Your task to perform on an android device: Search for the best 4k TVs Image 0: 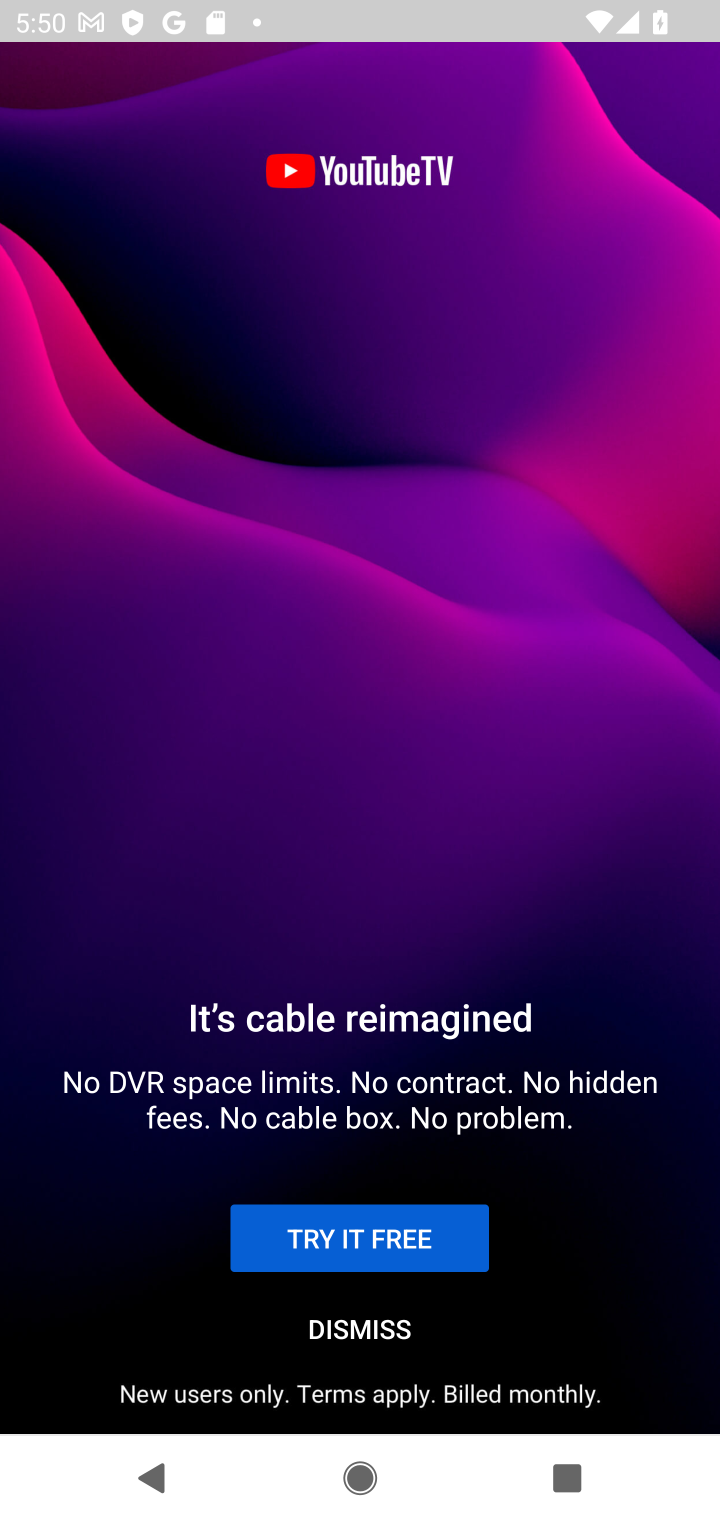
Step 0: press home button
Your task to perform on an android device: Search for the best 4k TVs Image 1: 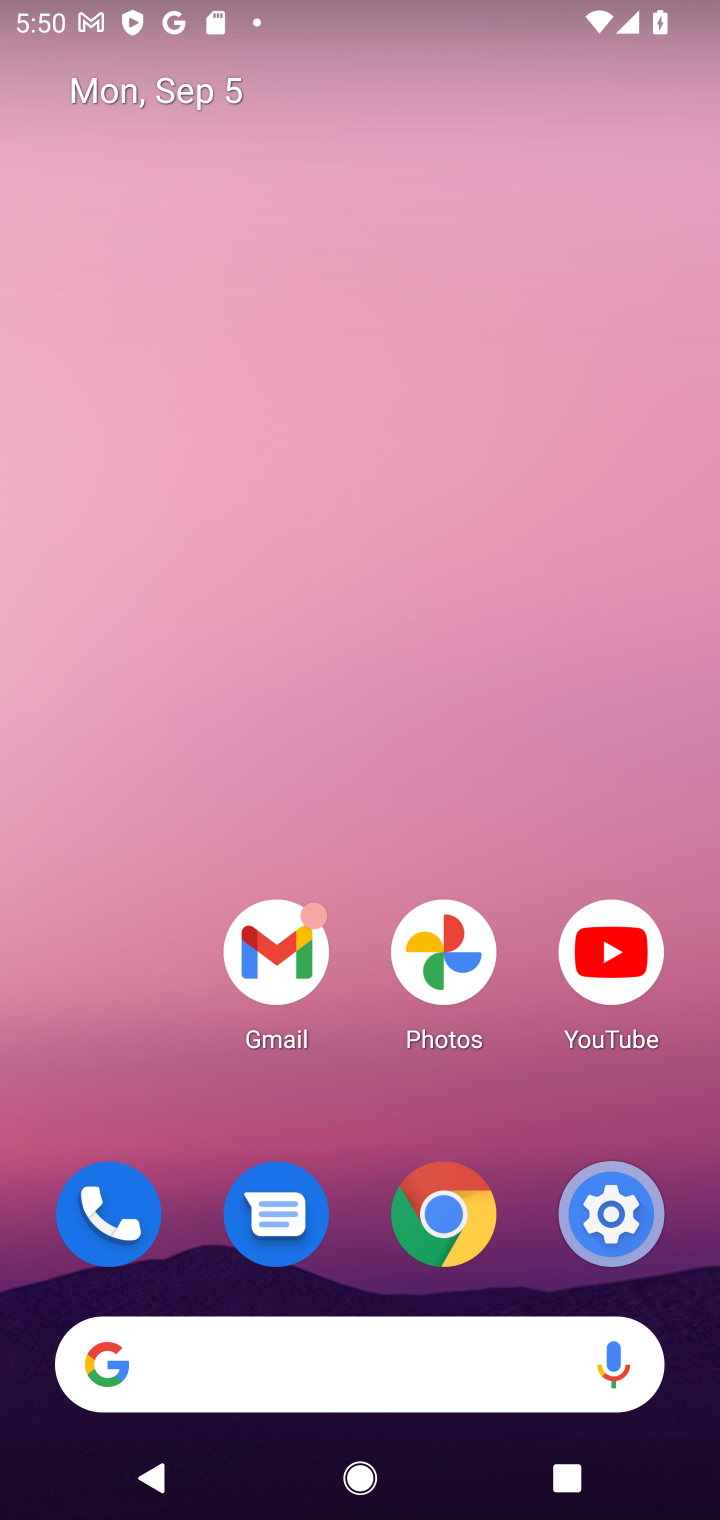
Step 1: drag from (540, 1264) to (463, 0)
Your task to perform on an android device: Search for the best 4k TVs Image 2: 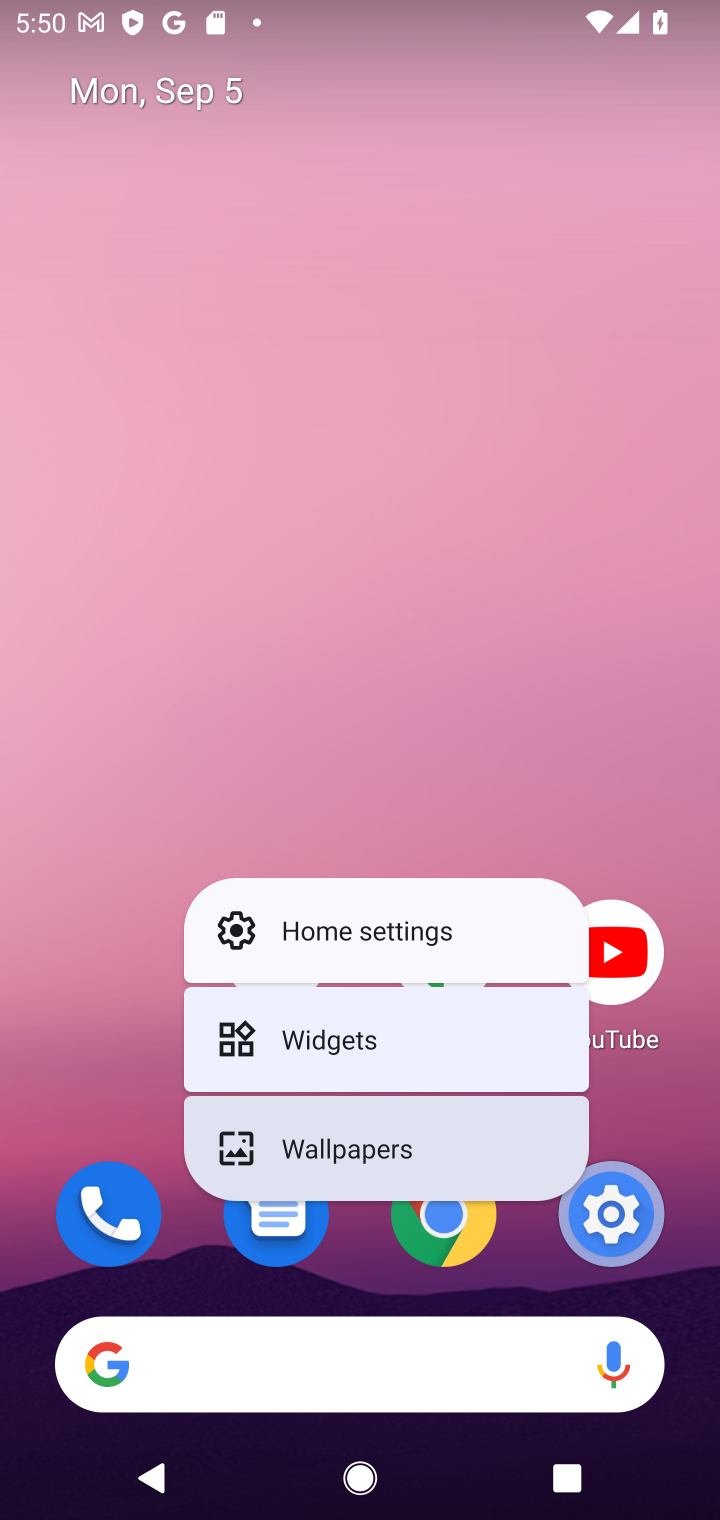
Step 2: click (533, 667)
Your task to perform on an android device: Search for the best 4k TVs Image 3: 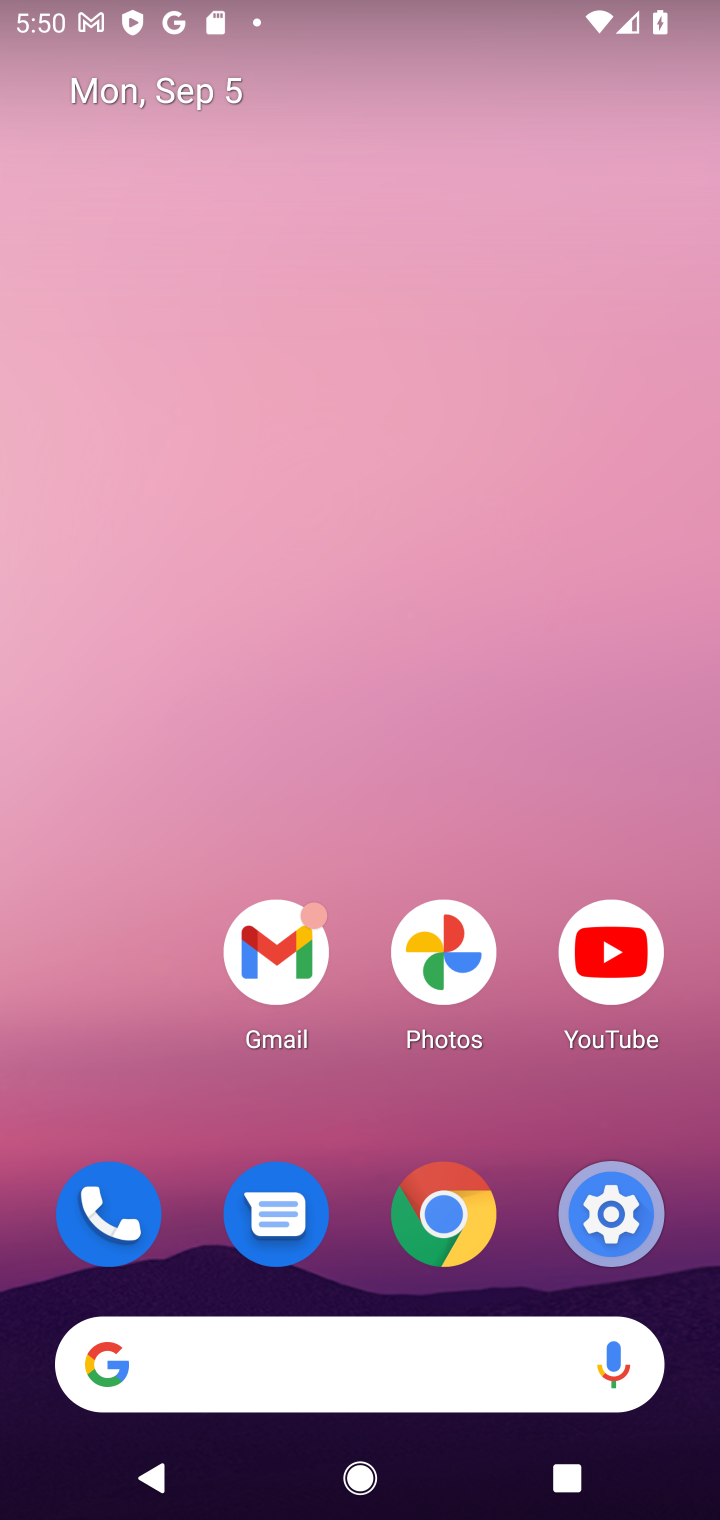
Step 3: drag from (547, 1268) to (453, 246)
Your task to perform on an android device: Search for the best 4k TVs Image 4: 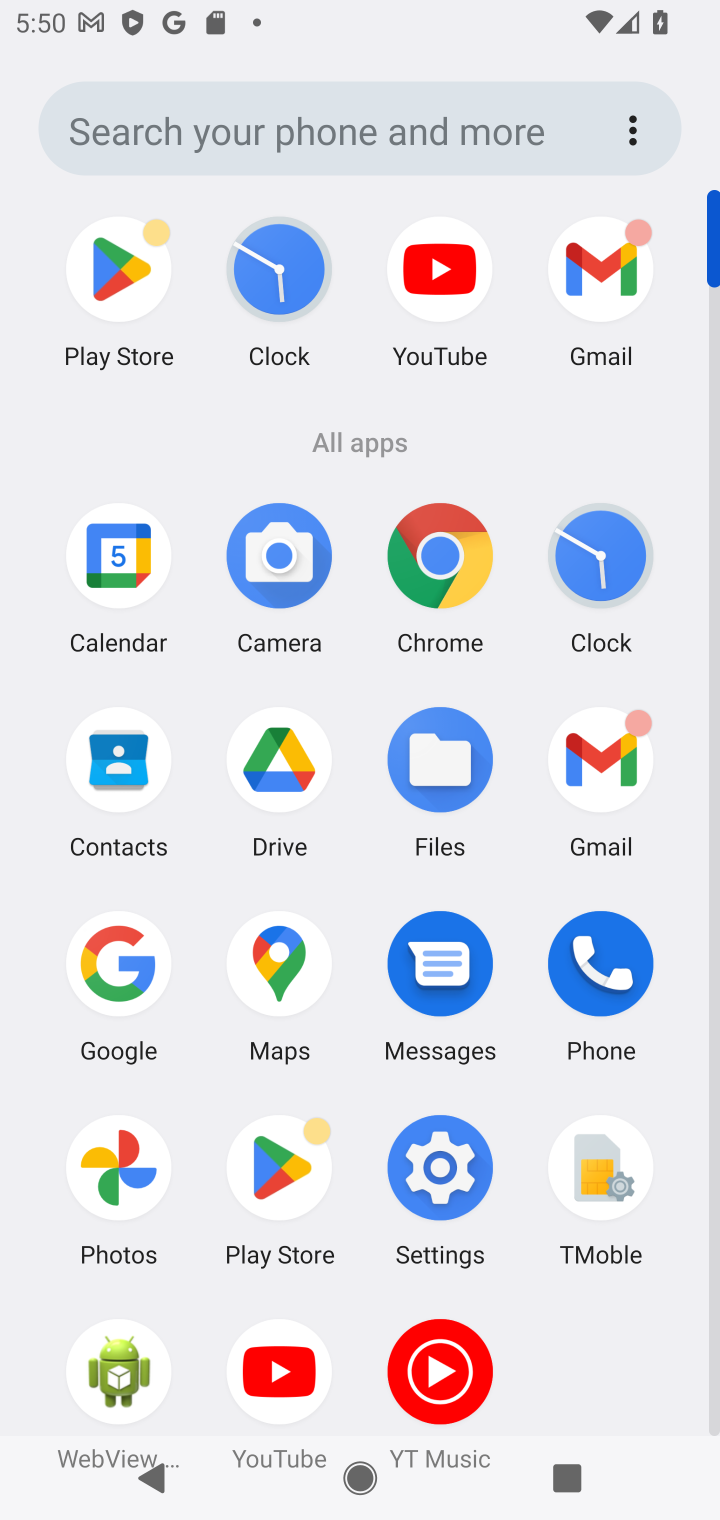
Step 4: click (435, 528)
Your task to perform on an android device: Search for the best 4k TVs Image 5: 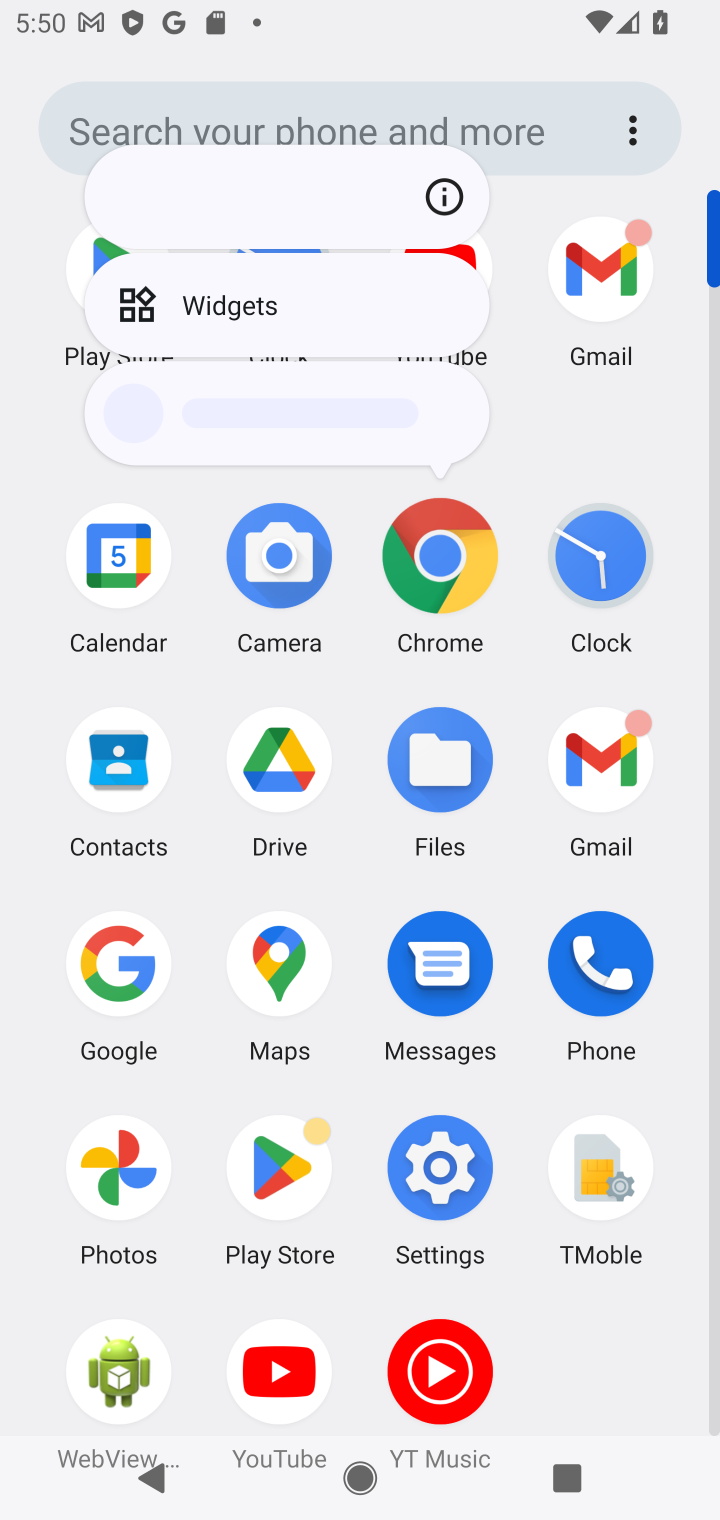
Step 5: click (419, 549)
Your task to perform on an android device: Search for the best 4k TVs Image 6: 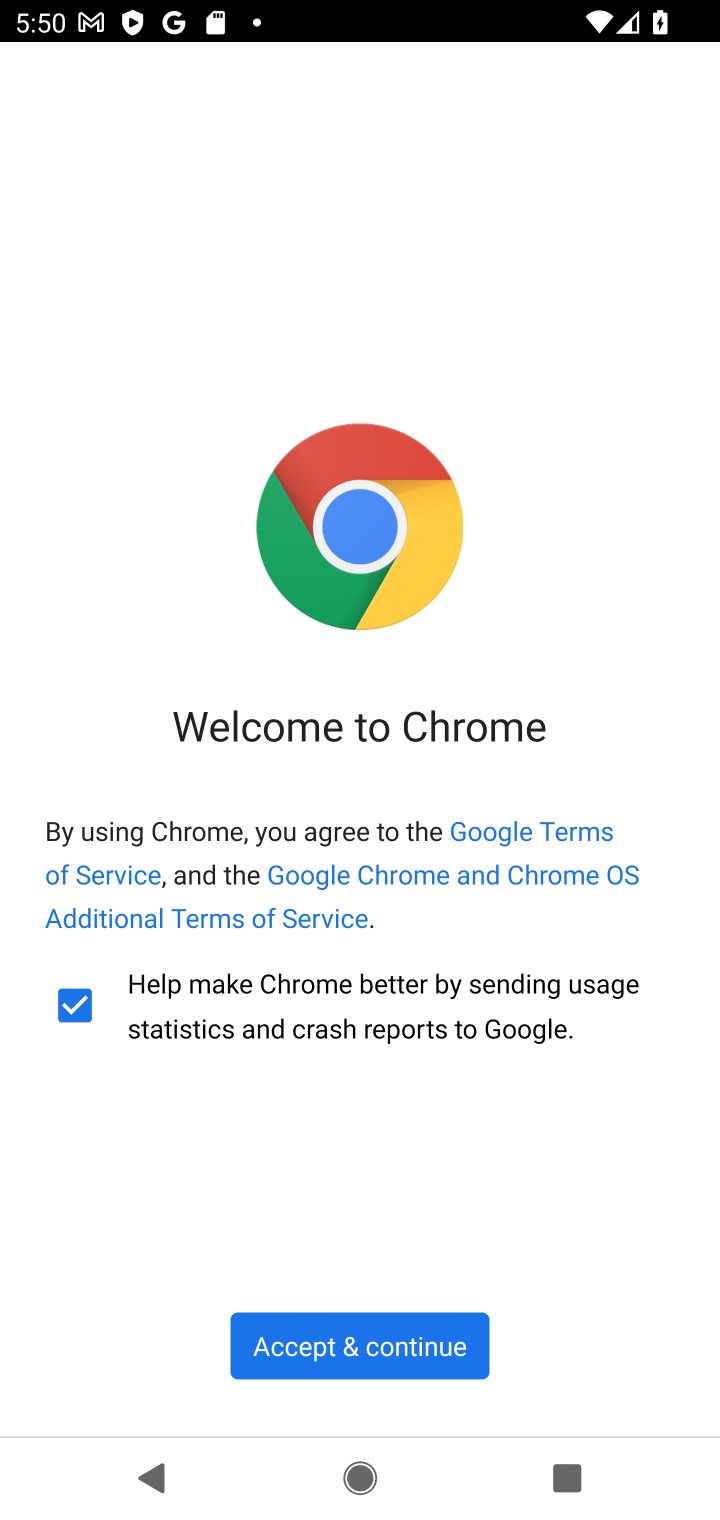
Step 6: click (444, 1334)
Your task to perform on an android device: Search for the best 4k TVs Image 7: 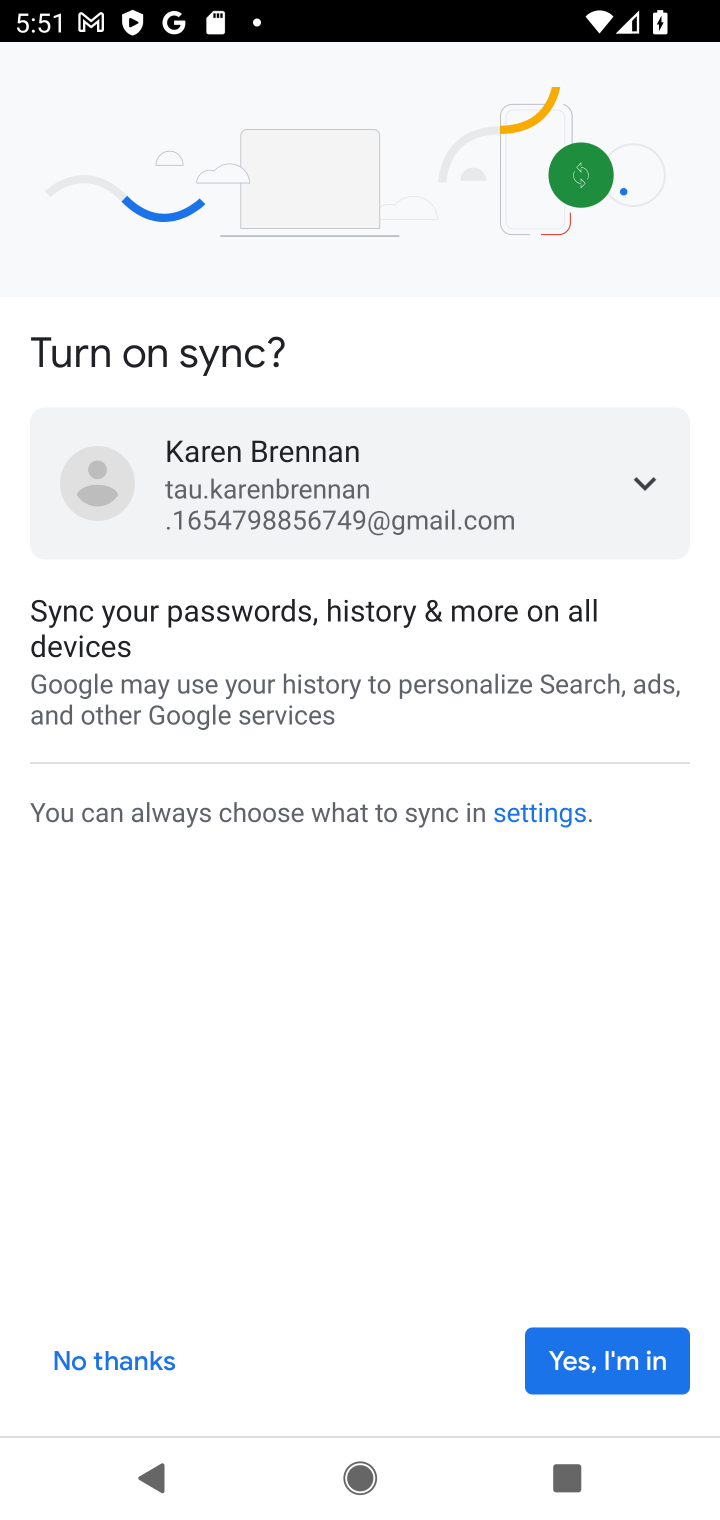
Step 7: click (606, 1363)
Your task to perform on an android device: Search for the best 4k TVs Image 8: 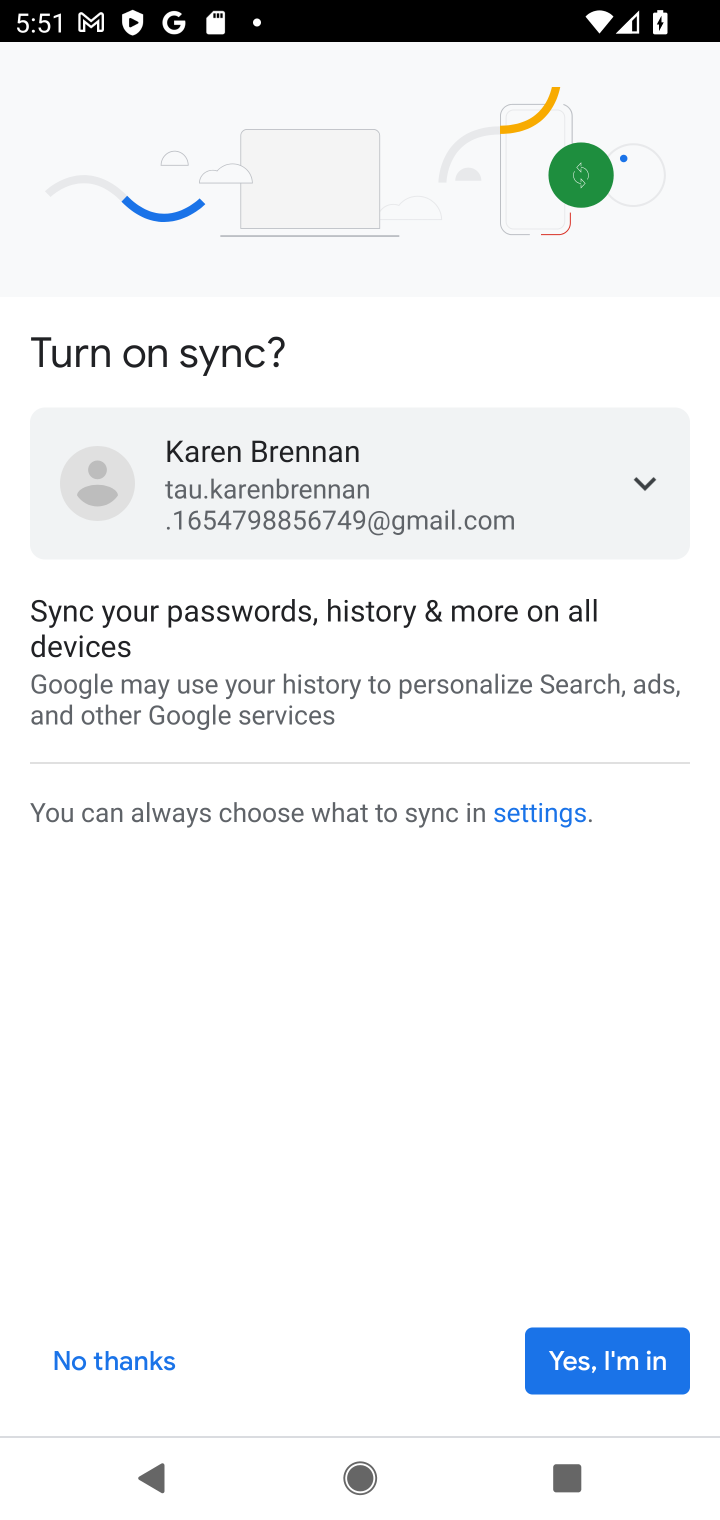
Step 8: click (578, 1367)
Your task to perform on an android device: Search for the best 4k TVs Image 9: 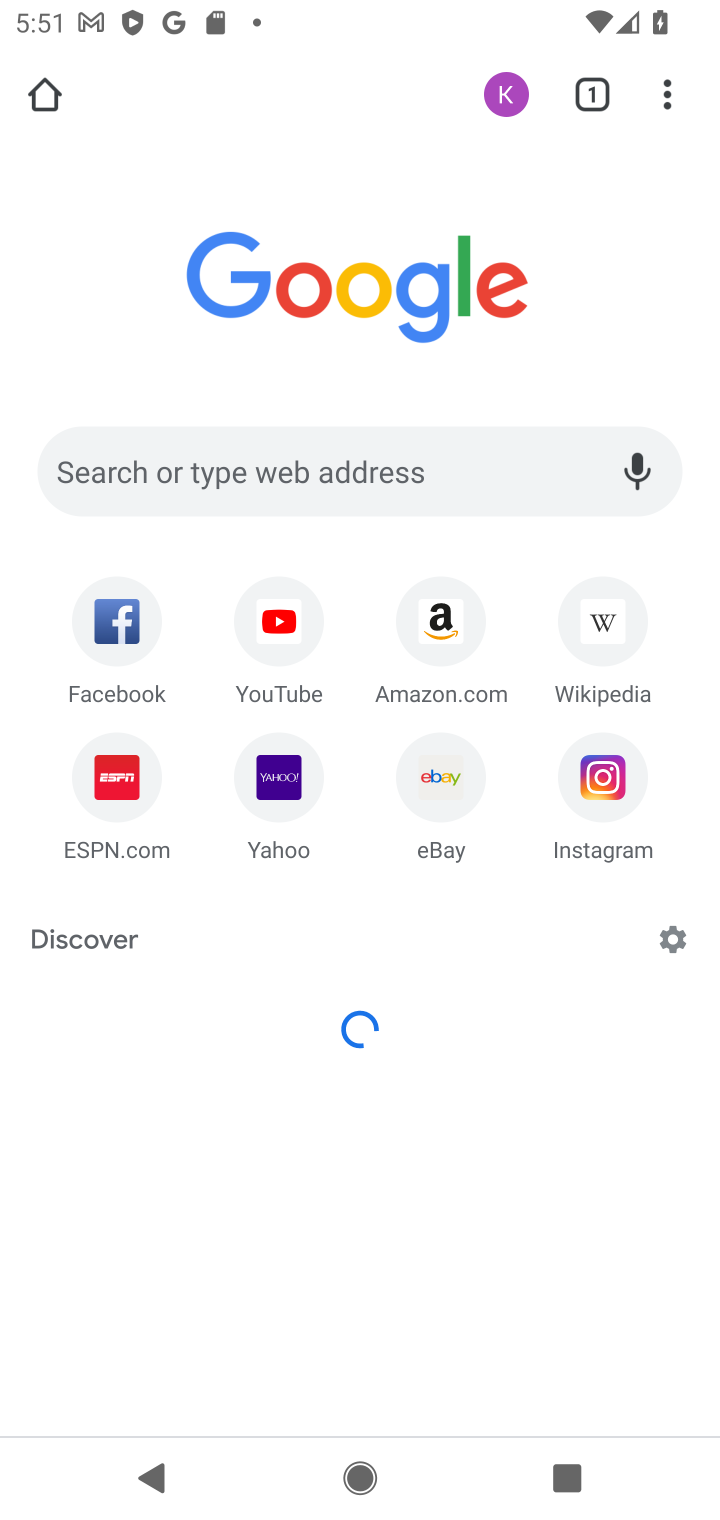
Step 9: click (466, 475)
Your task to perform on an android device: Search for the best 4k TVs Image 10: 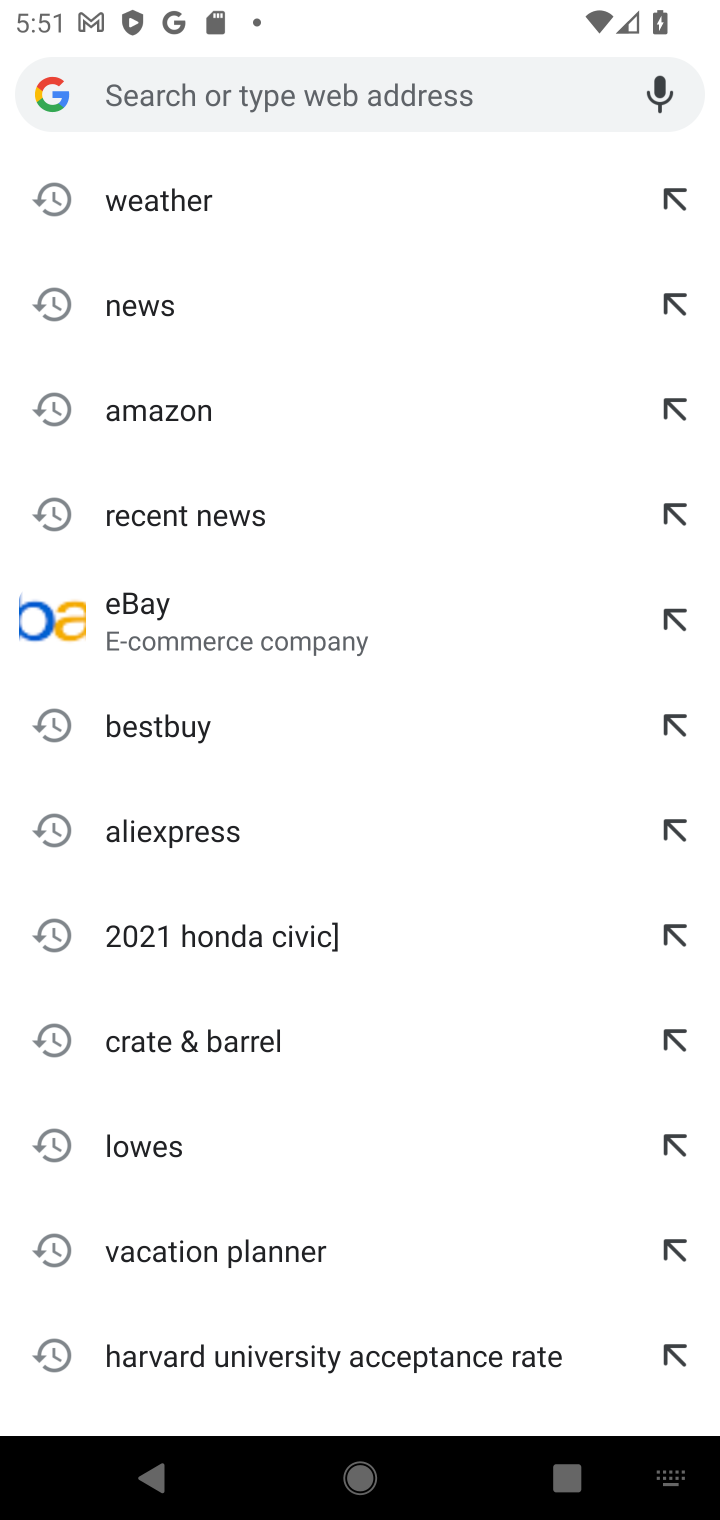
Step 10: type "best 4k TVs"
Your task to perform on an android device: Search for the best 4k TVs Image 11: 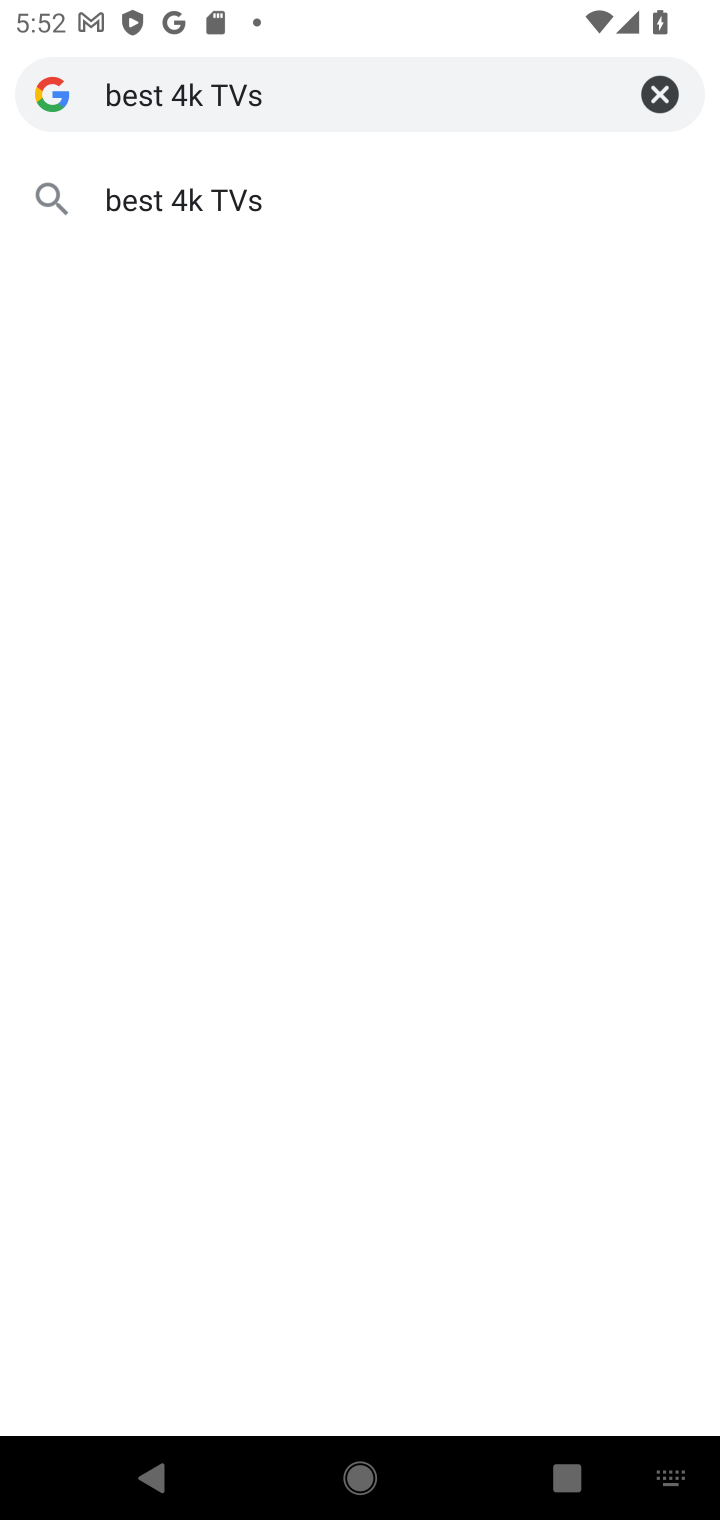
Step 11: click (199, 193)
Your task to perform on an android device: Search for the best 4k TVs Image 12: 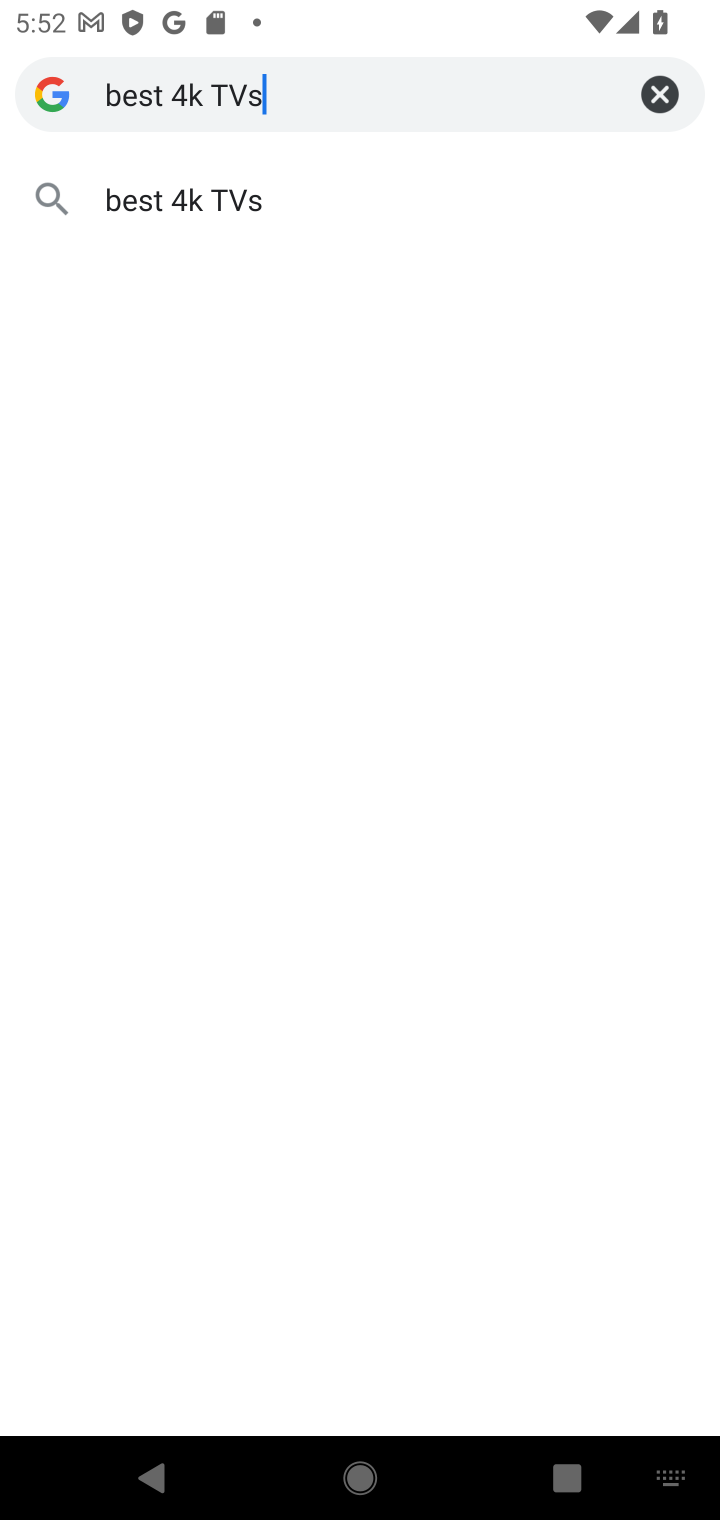
Step 12: click (164, 205)
Your task to perform on an android device: Search for the best 4k TVs Image 13: 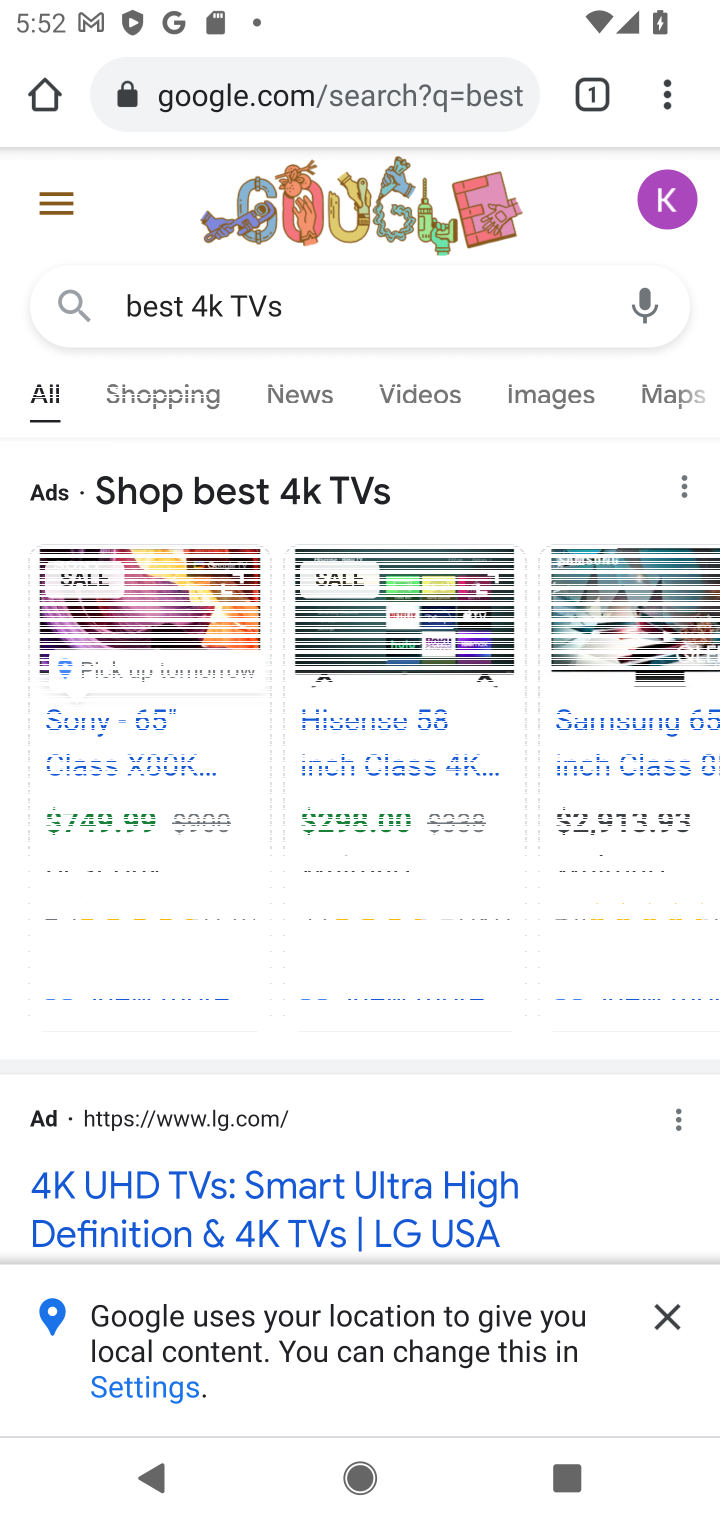
Step 13: task complete